Your task to perform on an android device: find photos in the google photos app Image 0: 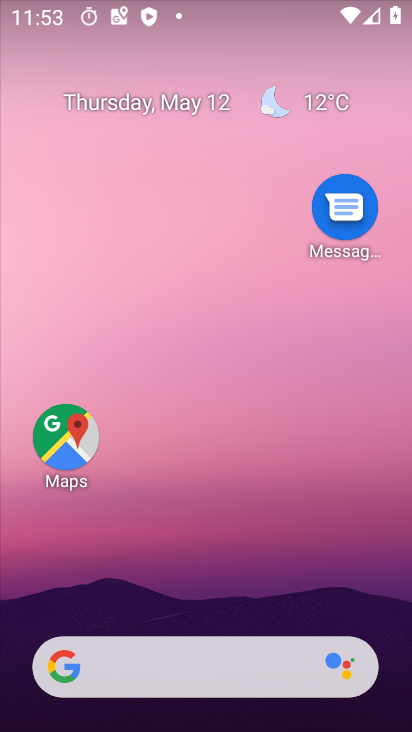
Step 0: press home button
Your task to perform on an android device: find photos in the google photos app Image 1: 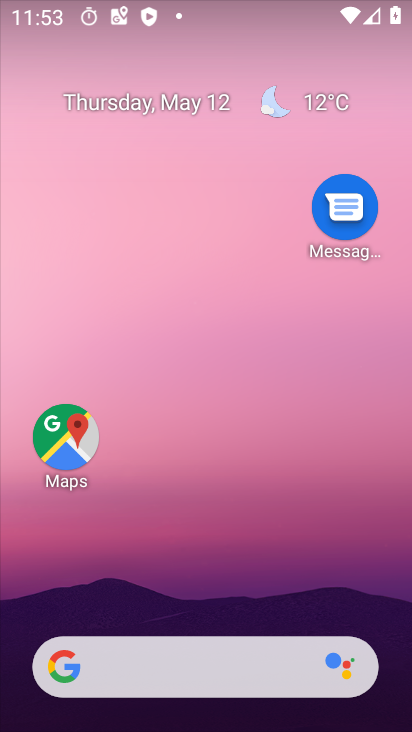
Step 1: drag from (329, 567) to (341, 87)
Your task to perform on an android device: find photos in the google photos app Image 2: 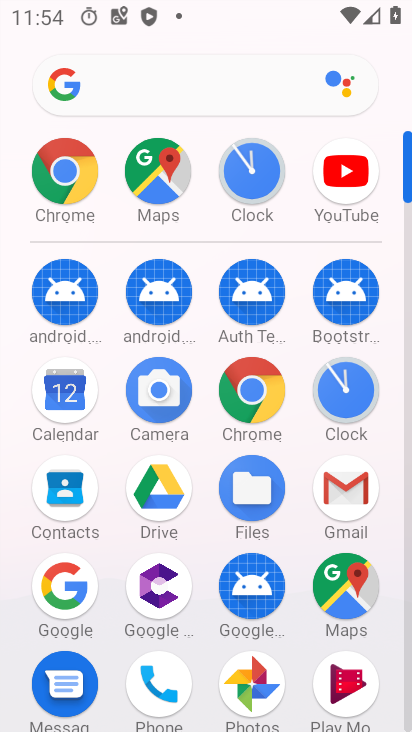
Step 2: click (250, 640)
Your task to perform on an android device: find photos in the google photos app Image 3: 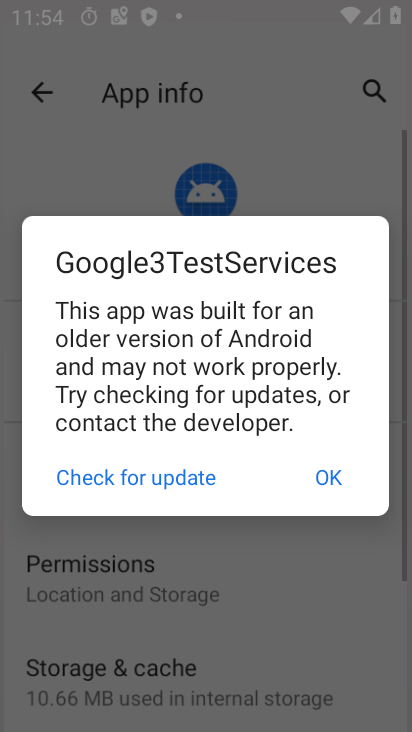
Step 3: press home button
Your task to perform on an android device: find photos in the google photos app Image 4: 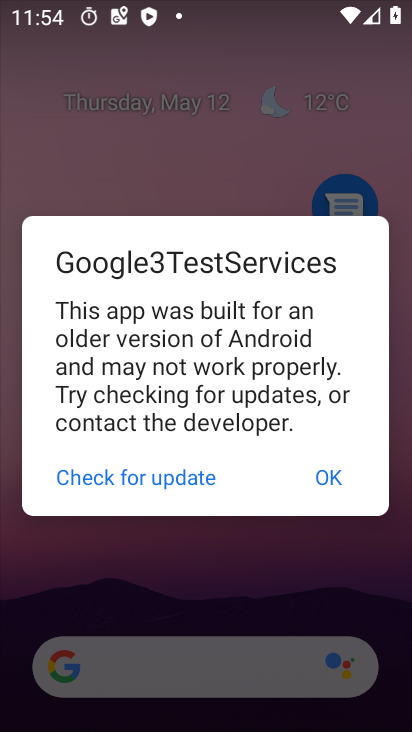
Step 4: click (308, 524)
Your task to perform on an android device: find photos in the google photos app Image 5: 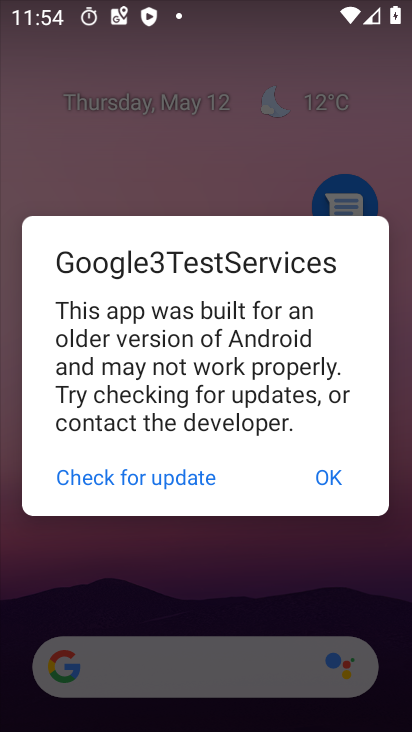
Step 5: press home button
Your task to perform on an android device: find photos in the google photos app Image 6: 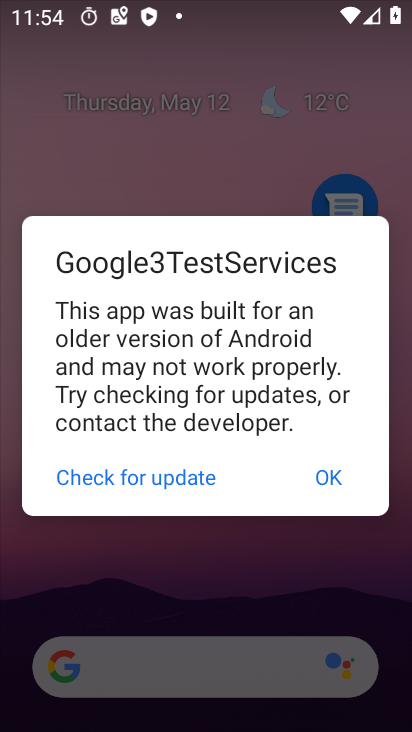
Step 6: press home button
Your task to perform on an android device: find photos in the google photos app Image 7: 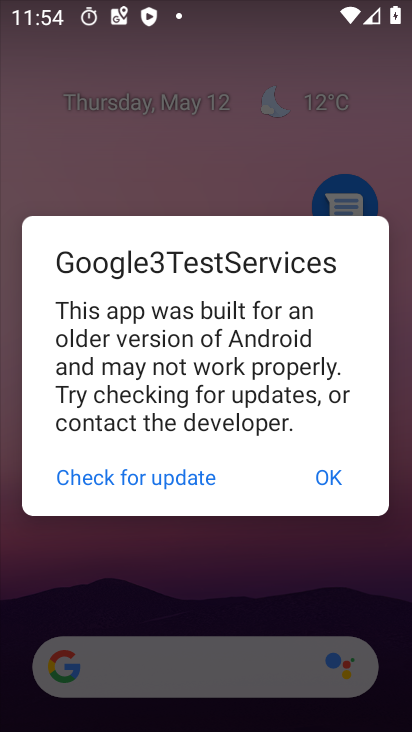
Step 7: press home button
Your task to perform on an android device: find photos in the google photos app Image 8: 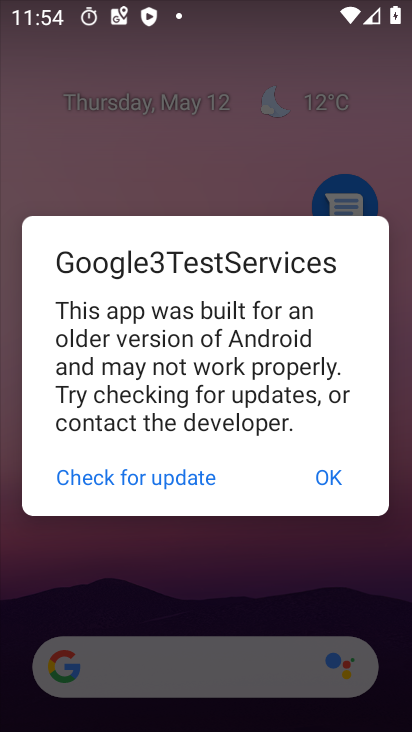
Step 8: press home button
Your task to perform on an android device: find photos in the google photos app Image 9: 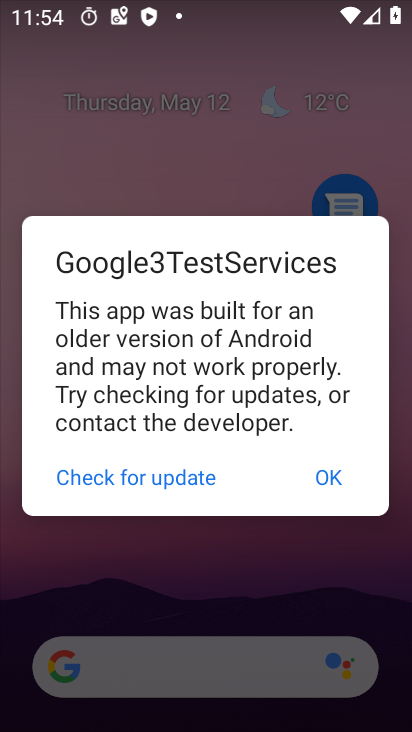
Step 9: click (323, 484)
Your task to perform on an android device: find photos in the google photos app Image 10: 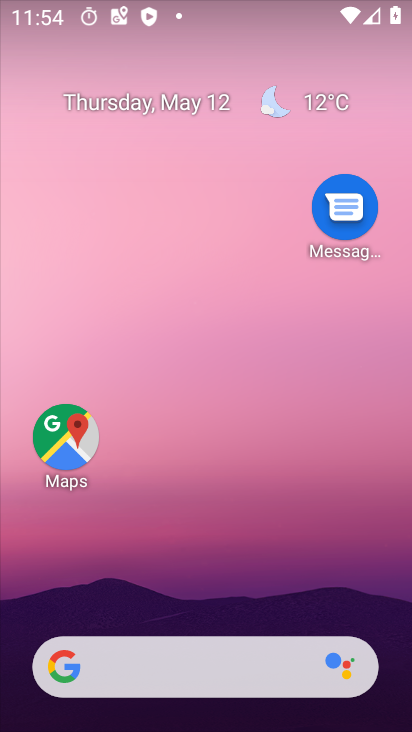
Step 10: drag from (316, 534) to (326, 391)
Your task to perform on an android device: find photos in the google photos app Image 11: 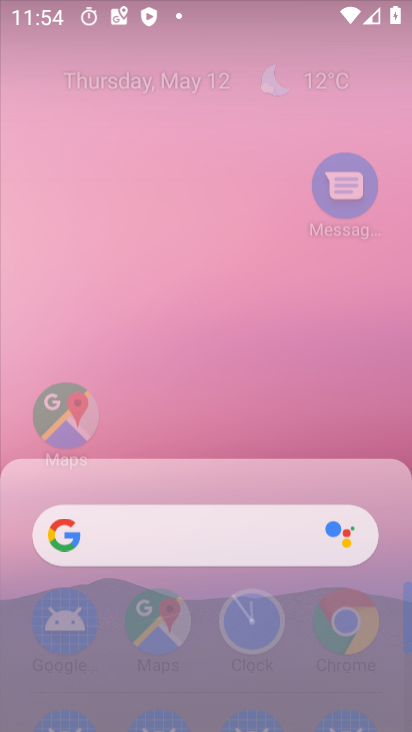
Step 11: drag from (328, 356) to (341, 193)
Your task to perform on an android device: find photos in the google photos app Image 12: 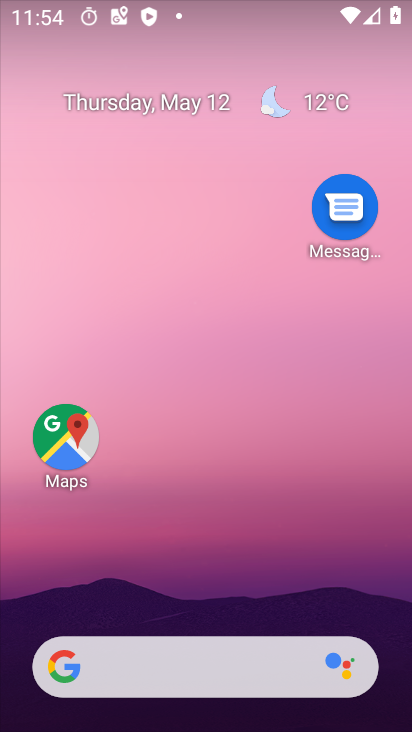
Step 12: drag from (296, 564) to (381, 0)
Your task to perform on an android device: find photos in the google photos app Image 13: 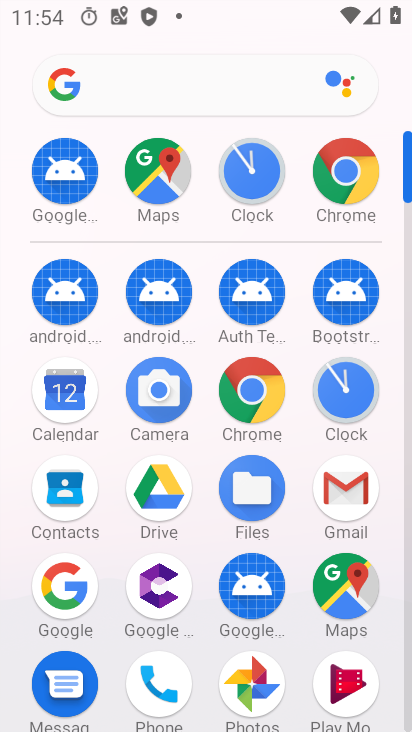
Step 13: click (254, 704)
Your task to perform on an android device: find photos in the google photos app Image 14: 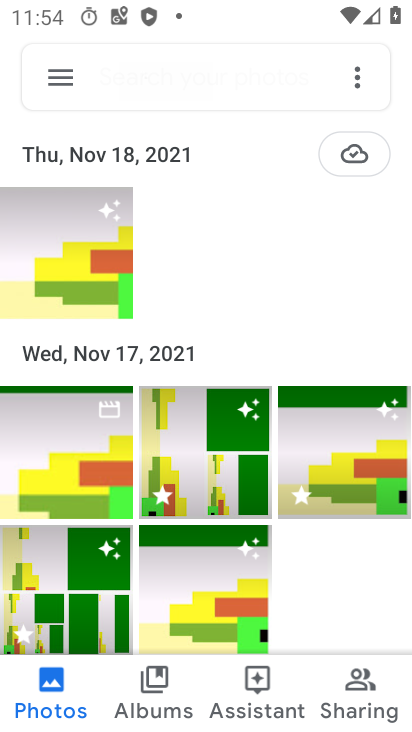
Step 14: task complete